Your task to perform on an android device: When is my next appointment? Image 0: 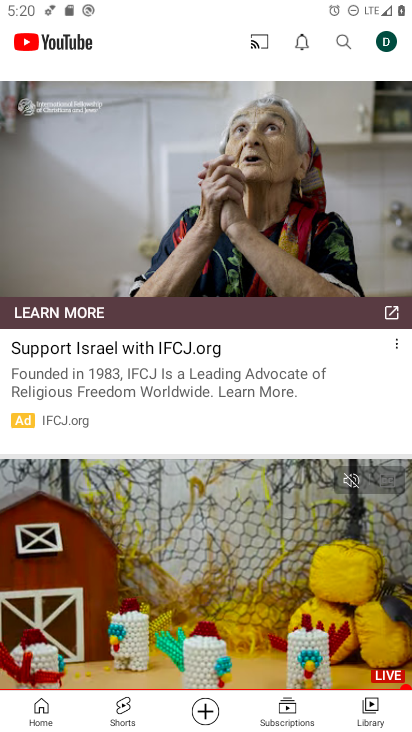
Step 0: press home button
Your task to perform on an android device: When is my next appointment? Image 1: 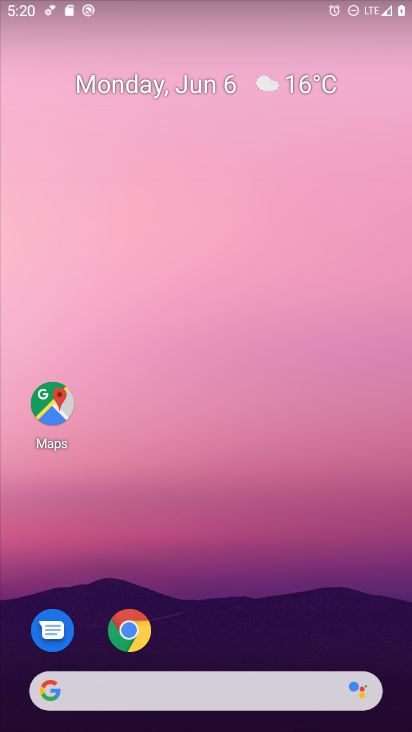
Step 1: click (170, 87)
Your task to perform on an android device: When is my next appointment? Image 2: 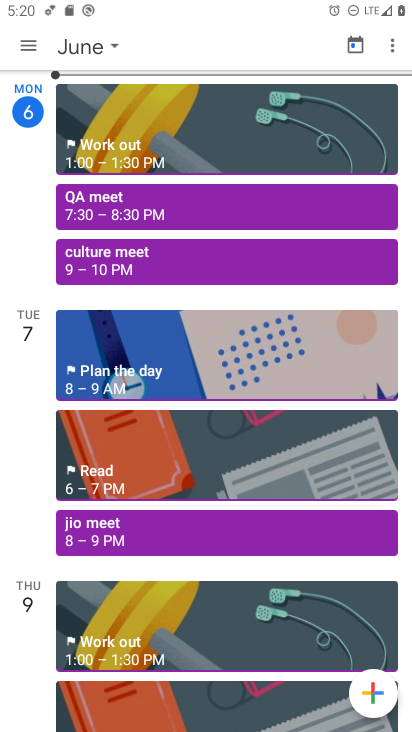
Step 2: task complete